Your task to perform on an android device: check storage Image 0: 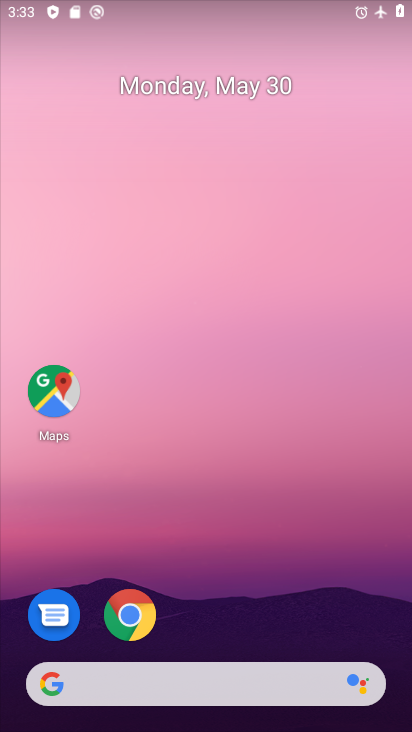
Step 0: drag from (272, 597) to (301, 29)
Your task to perform on an android device: check storage Image 1: 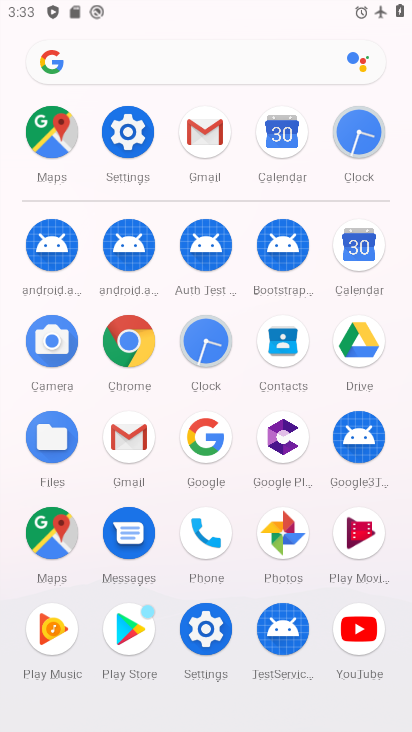
Step 1: click (148, 128)
Your task to perform on an android device: check storage Image 2: 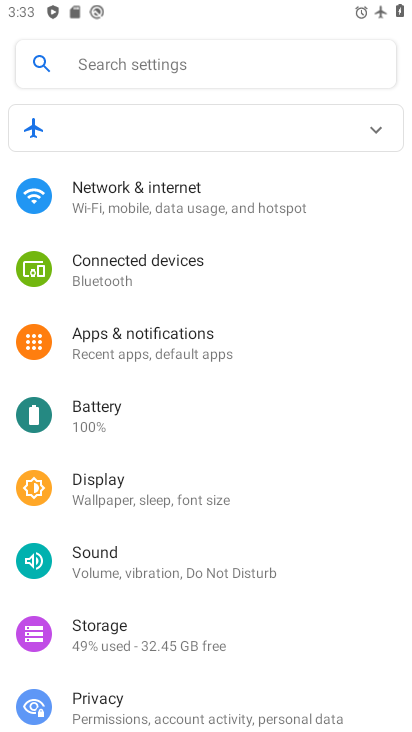
Step 2: click (118, 641)
Your task to perform on an android device: check storage Image 3: 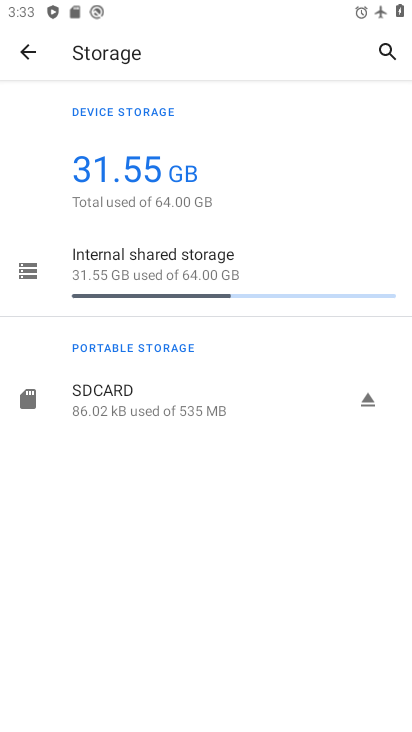
Step 3: task complete